Your task to perform on an android device: toggle priority inbox in the gmail app Image 0: 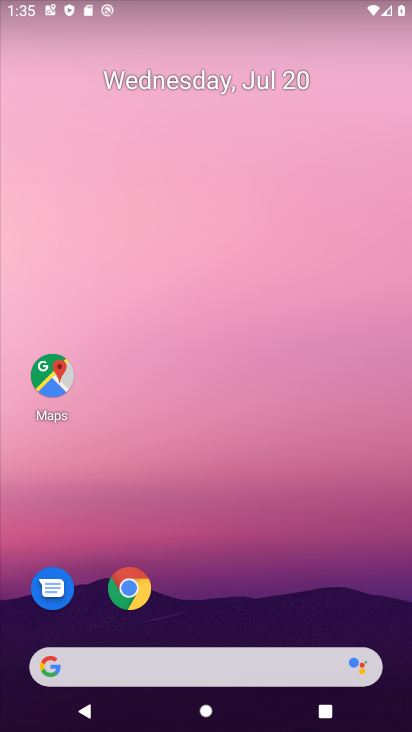
Step 0: drag from (368, 589) to (292, 47)
Your task to perform on an android device: toggle priority inbox in the gmail app Image 1: 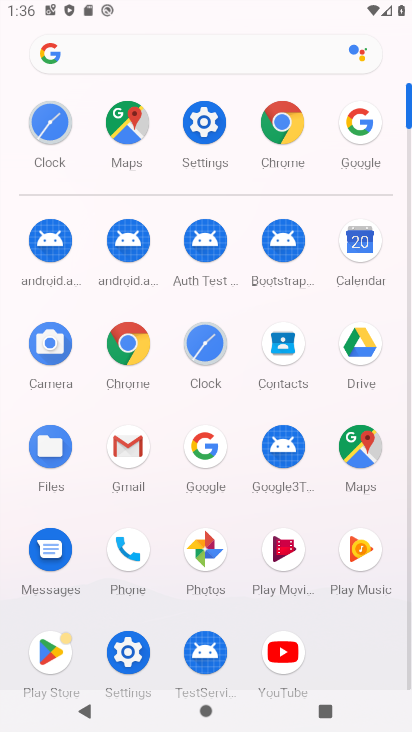
Step 1: click (140, 449)
Your task to perform on an android device: toggle priority inbox in the gmail app Image 2: 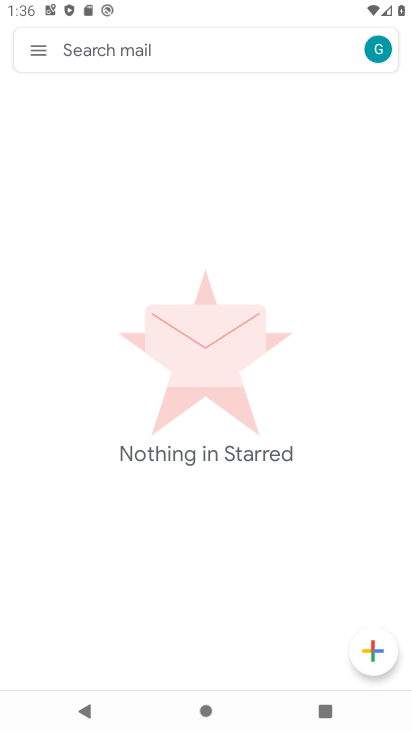
Step 2: click (32, 39)
Your task to perform on an android device: toggle priority inbox in the gmail app Image 3: 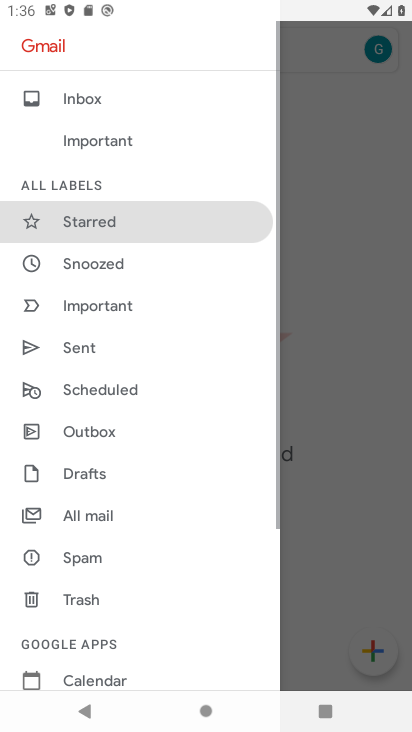
Step 3: drag from (63, 653) to (119, 57)
Your task to perform on an android device: toggle priority inbox in the gmail app Image 4: 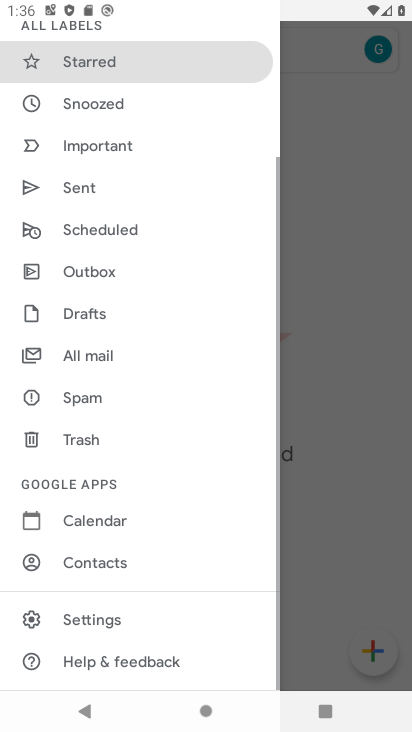
Step 4: click (66, 637)
Your task to perform on an android device: toggle priority inbox in the gmail app Image 5: 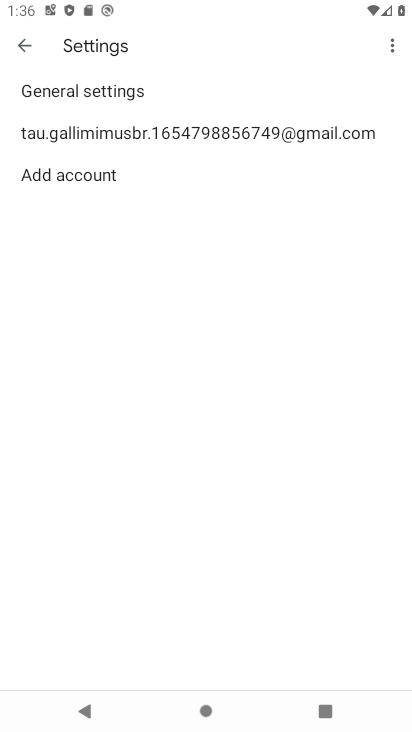
Step 5: click (115, 125)
Your task to perform on an android device: toggle priority inbox in the gmail app Image 6: 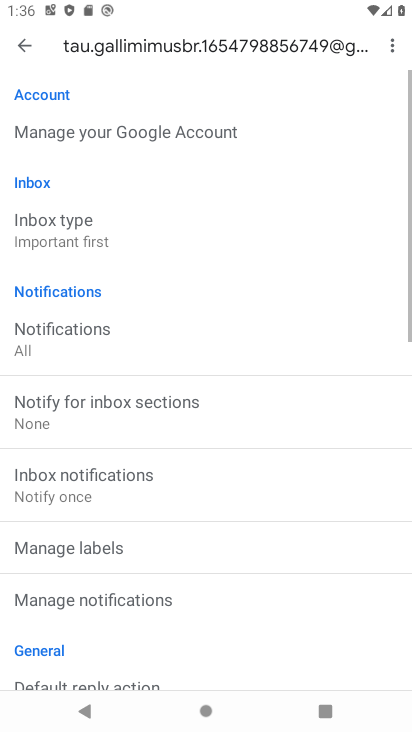
Step 6: click (81, 244)
Your task to perform on an android device: toggle priority inbox in the gmail app Image 7: 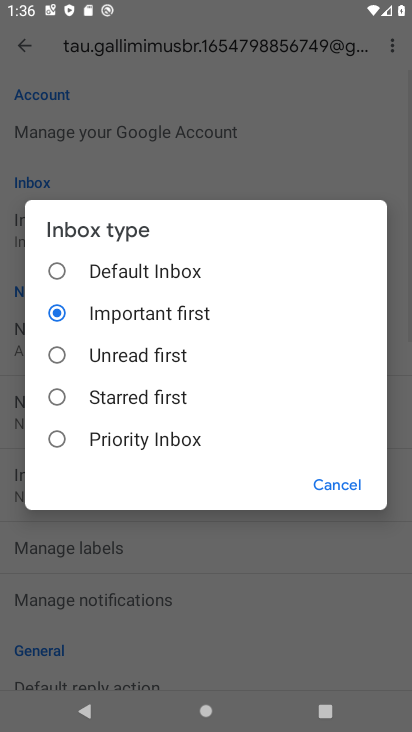
Step 7: click (87, 258)
Your task to perform on an android device: toggle priority inbox in the gmail app Image 8: 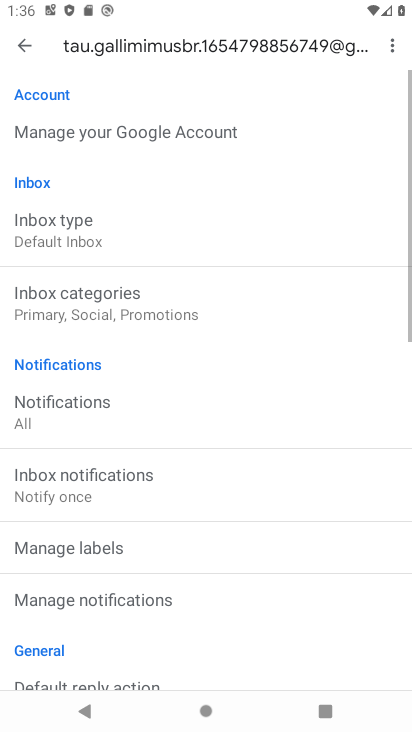
Step 8: task complete